Your task to perform on an android device: Open calendar and show me the third week of next month Image 0: 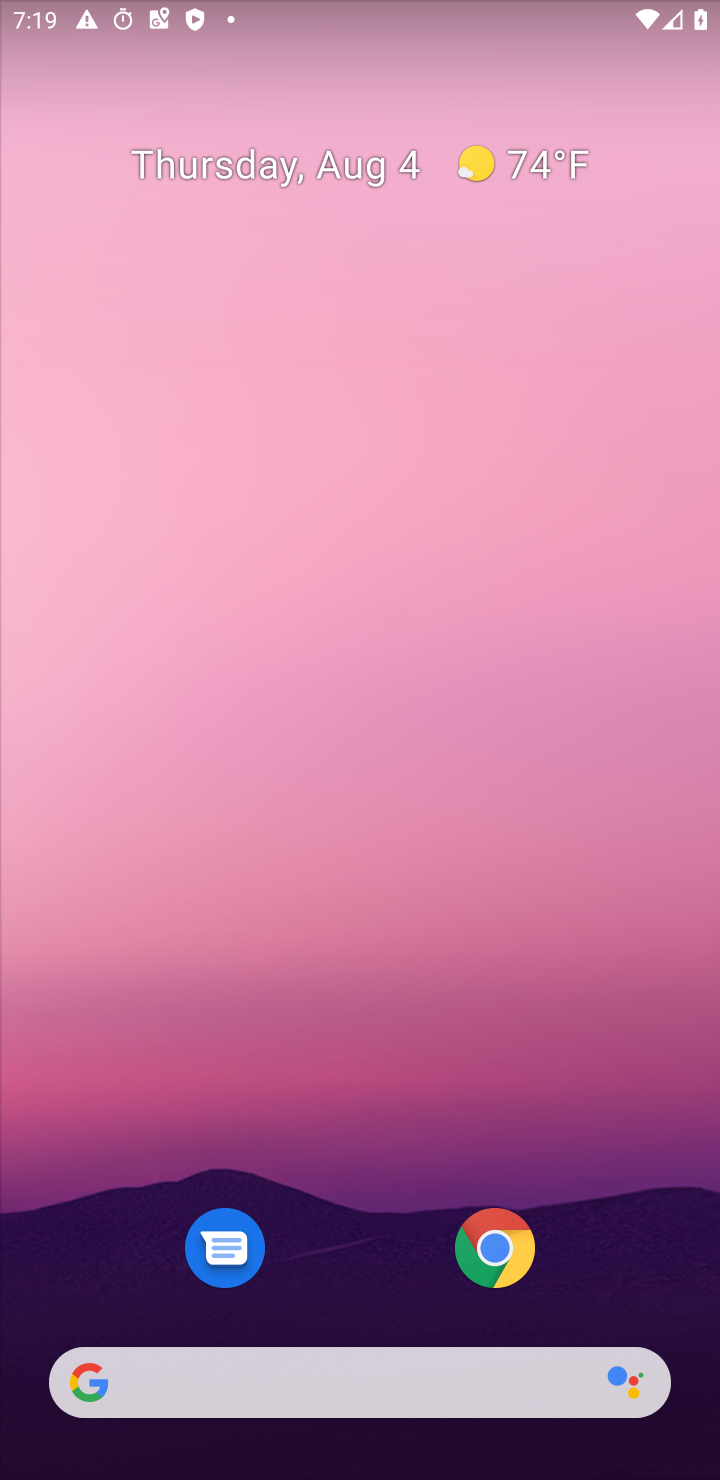
Step 0: press home button
Your task to perform on an android device: Open calendar and show me the third week of next month Image 1: 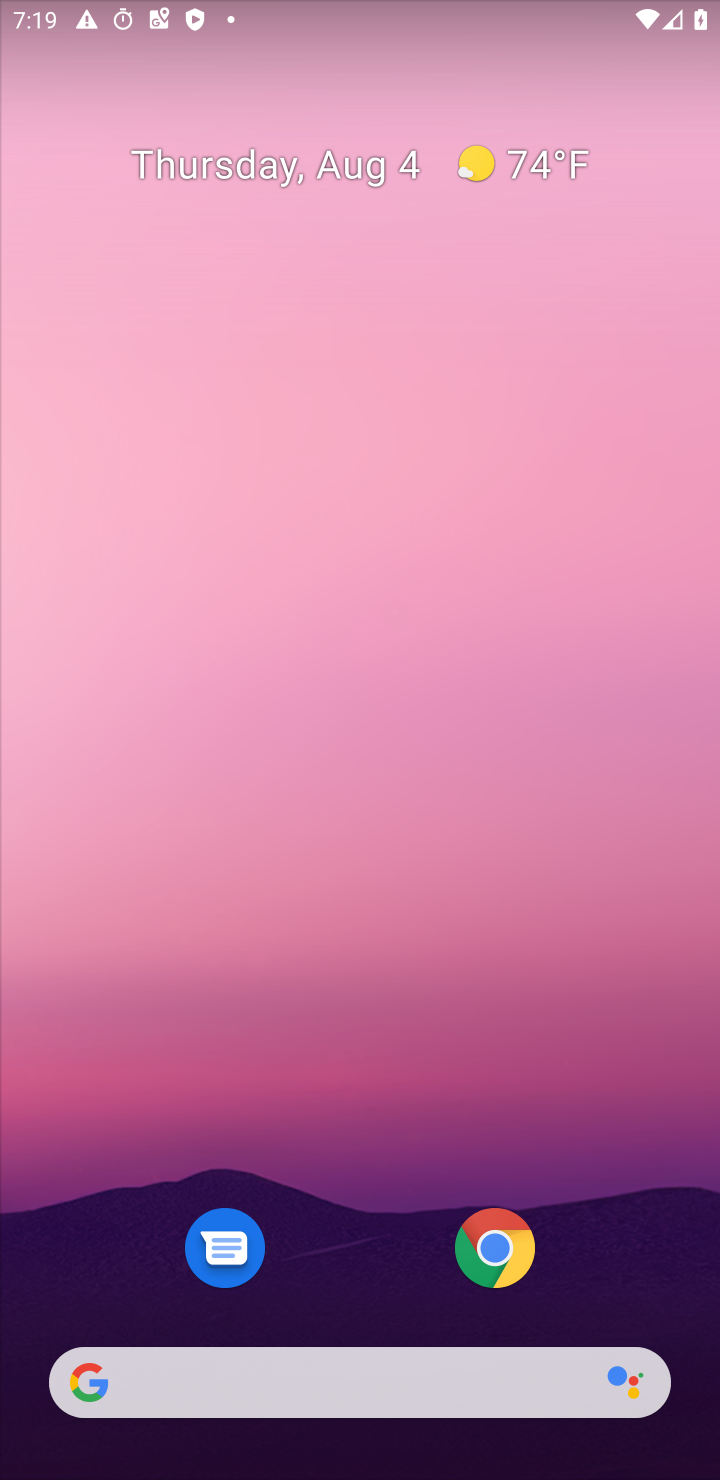
Step 1: drag from (379, 1328) to (413, 531)
Your task to perform on an android device: Open calendar and show me the third week of next month Image 2: 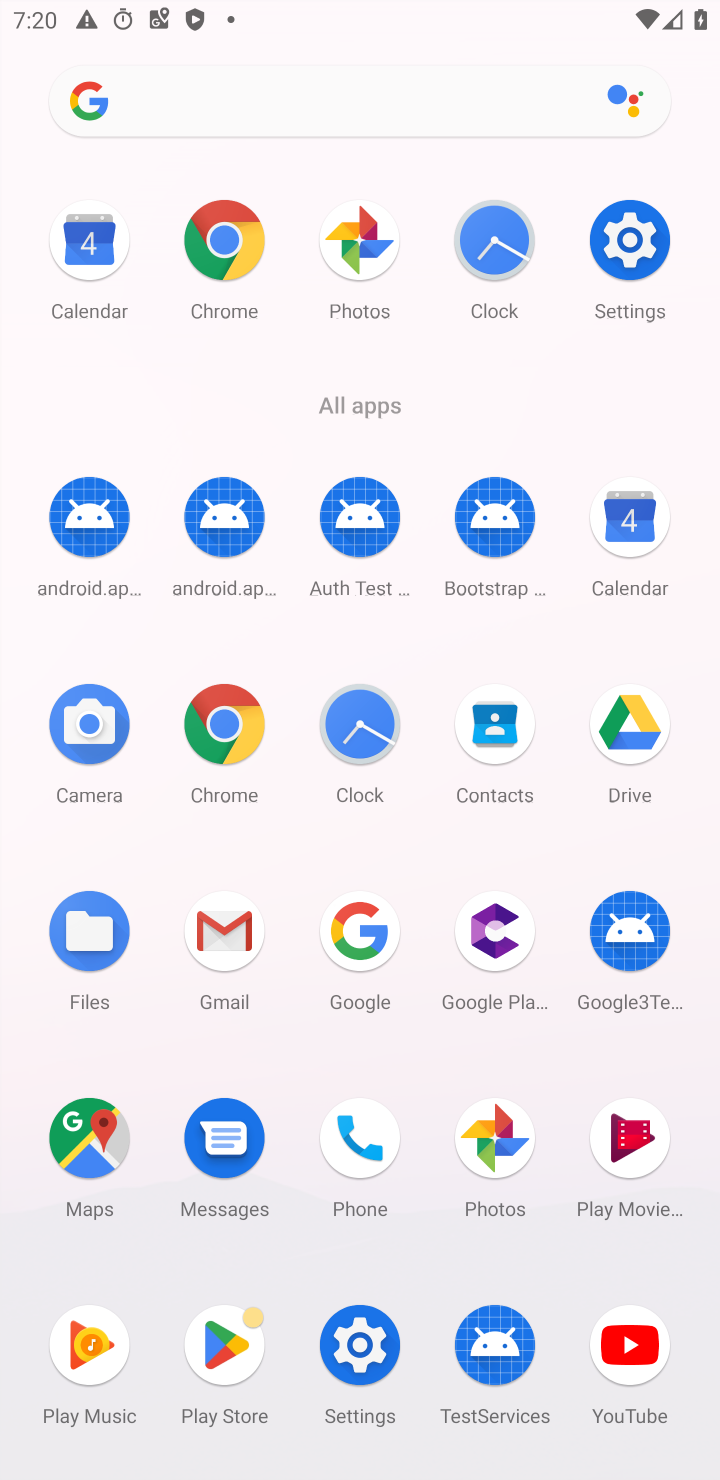
Step 2: click (611, 528)
Your task to perform on an android device: Open calendar and show me the third week of next month Image 3: 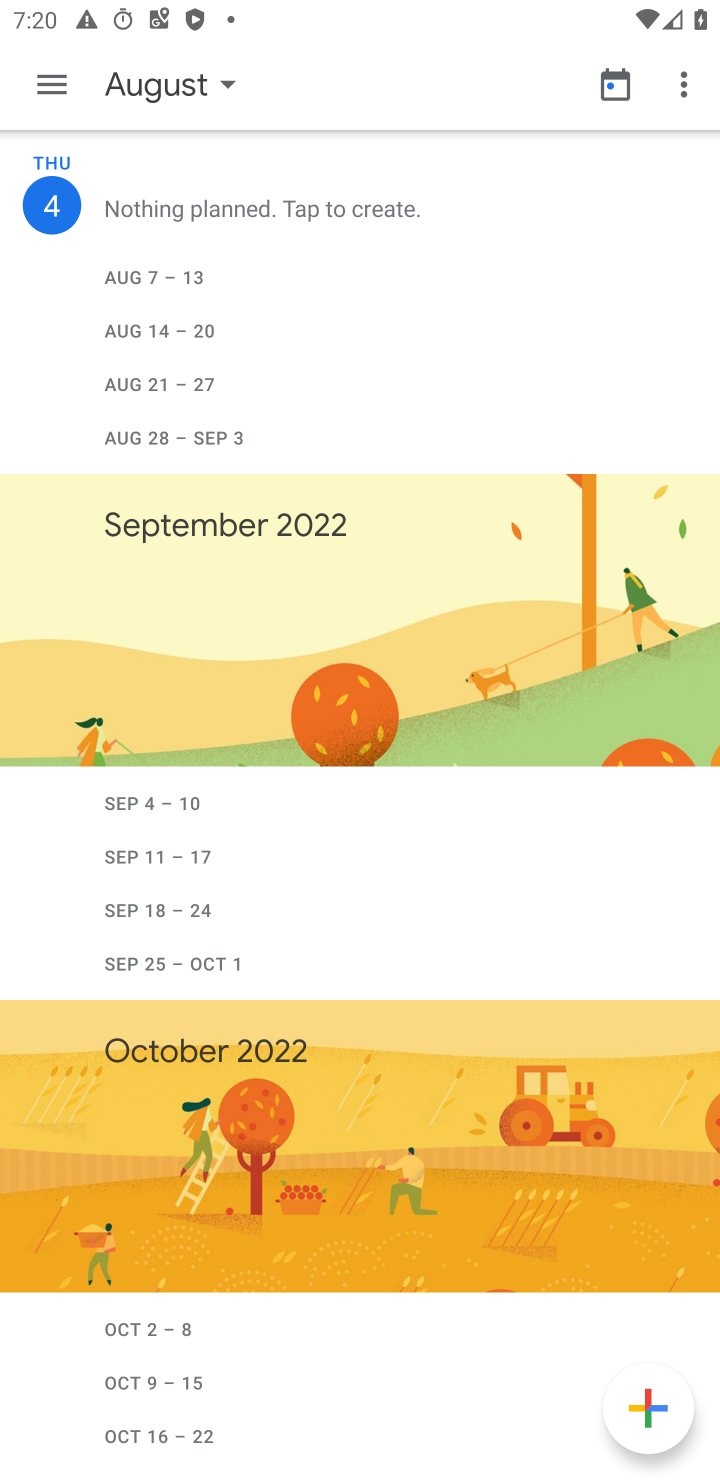
Step 3: click (28, 100)
Your task to perform on an android device: Open calendar and show me the third week of next month Image 4: 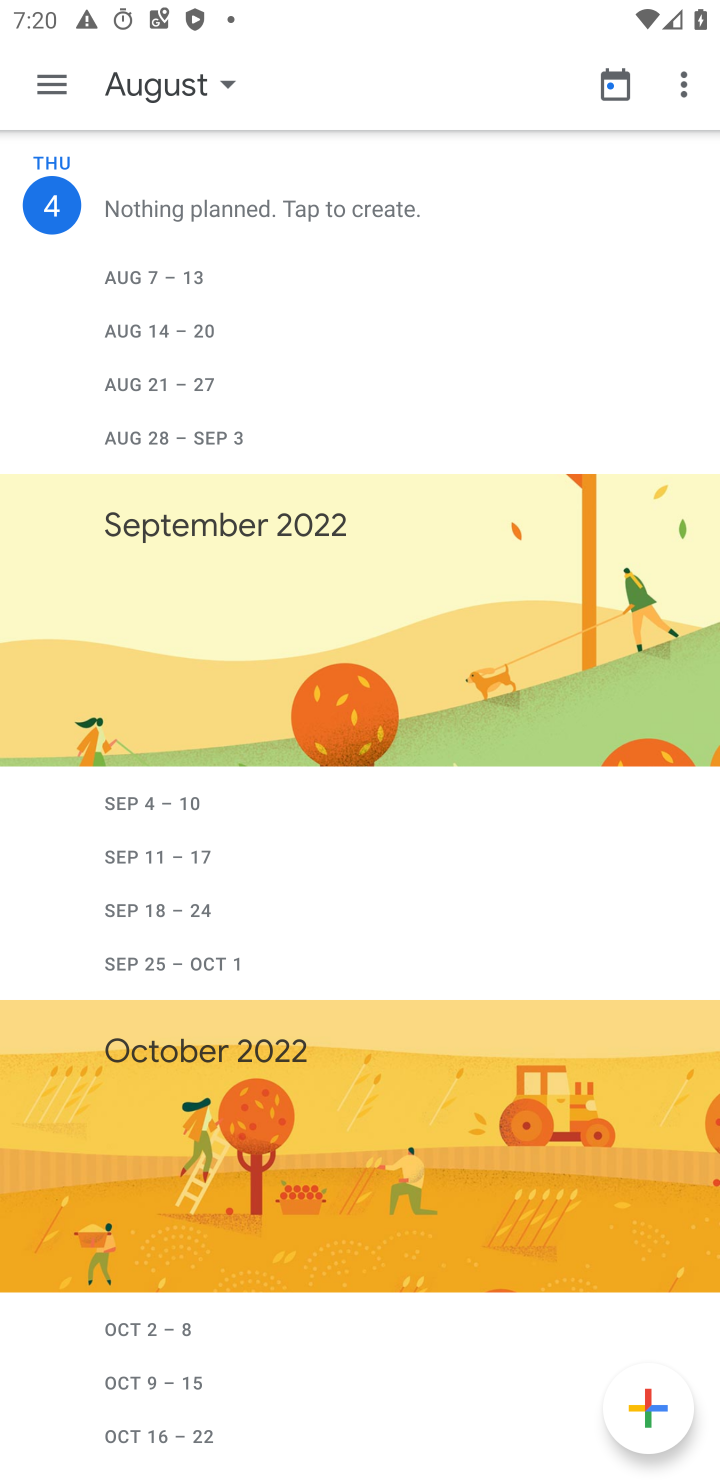
Step 4: click (51, 109)
Your task to perform on an android device: Open calendar and show me the third week of next month Image 5: 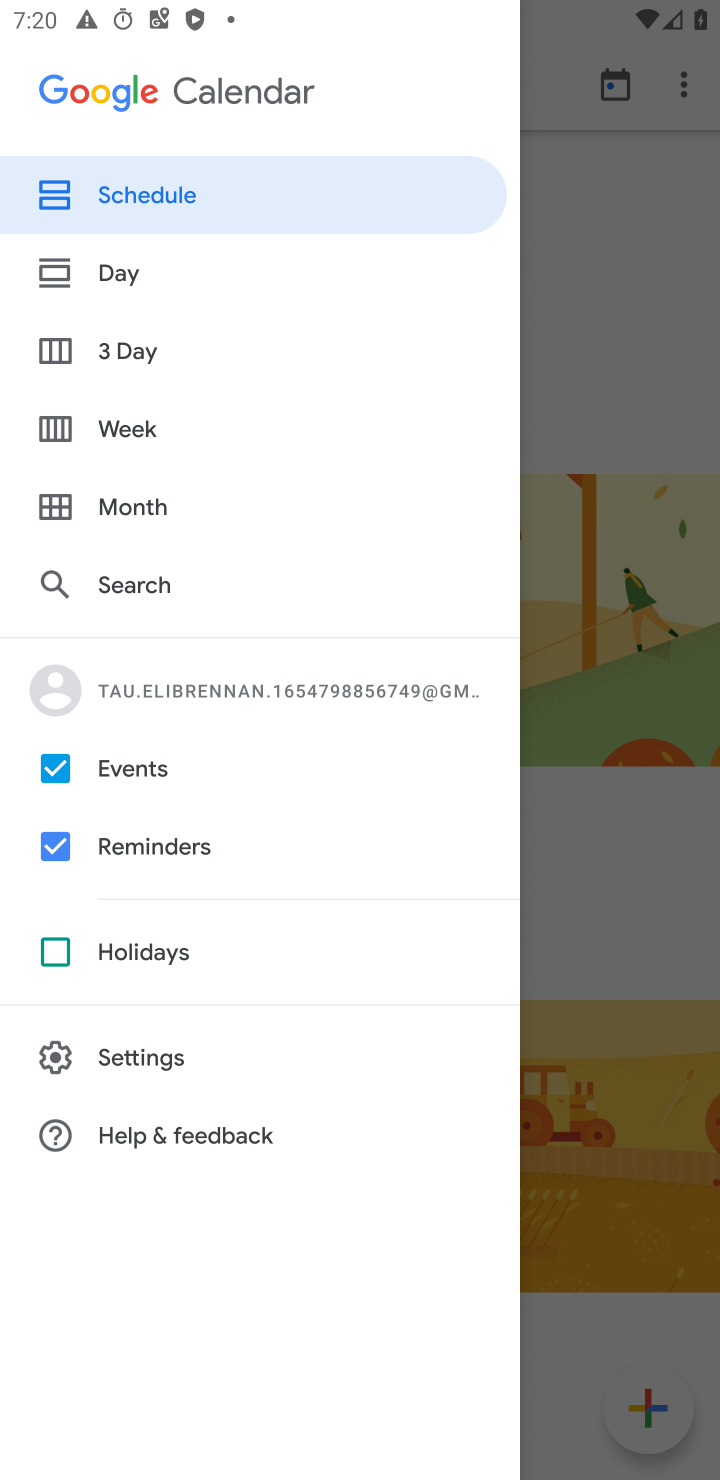
Step 5: click (163, 506)
Your task to perform on an android device: Open calendar and show me the third week of next month Image 6: 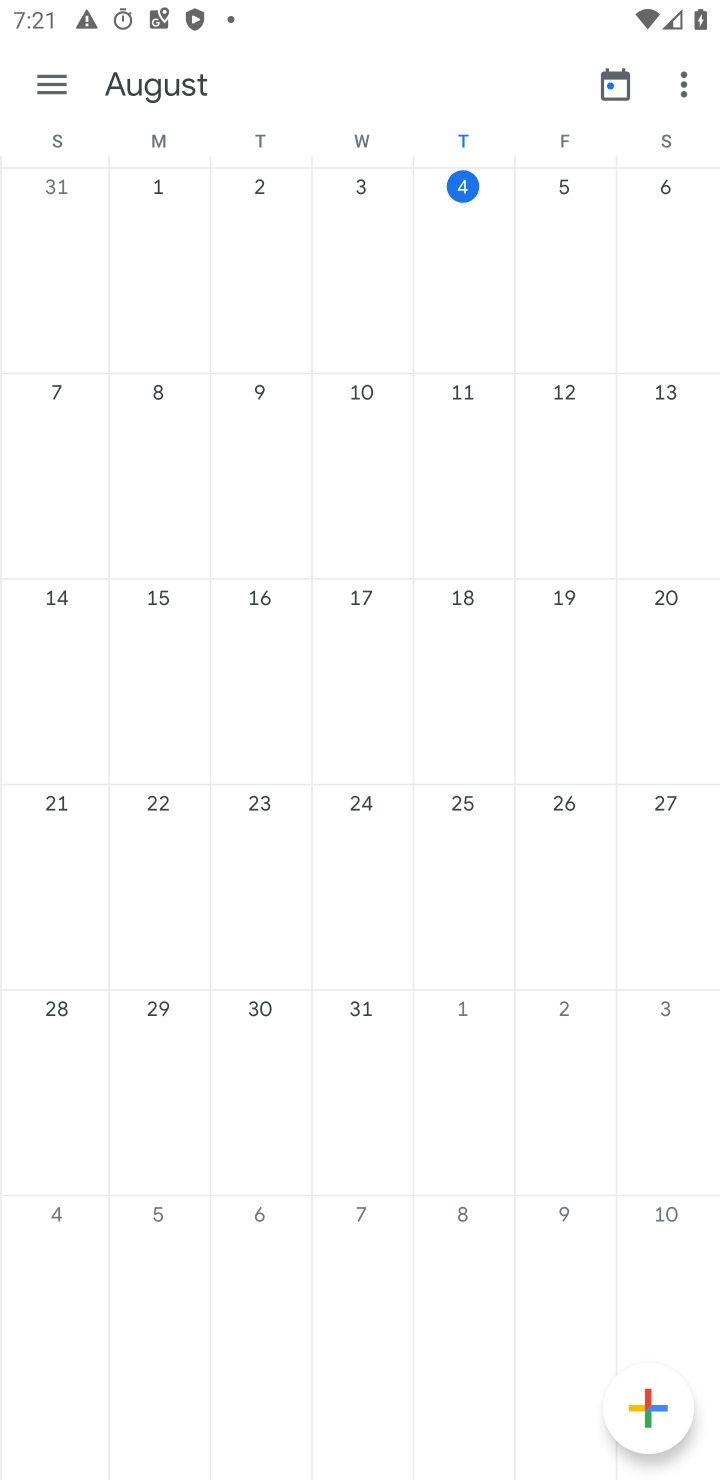
Step 6: drag from (664, 647) to (18, 606)
Your task to perform on an android device: Open calendar and show me the third week of next month Image 7: 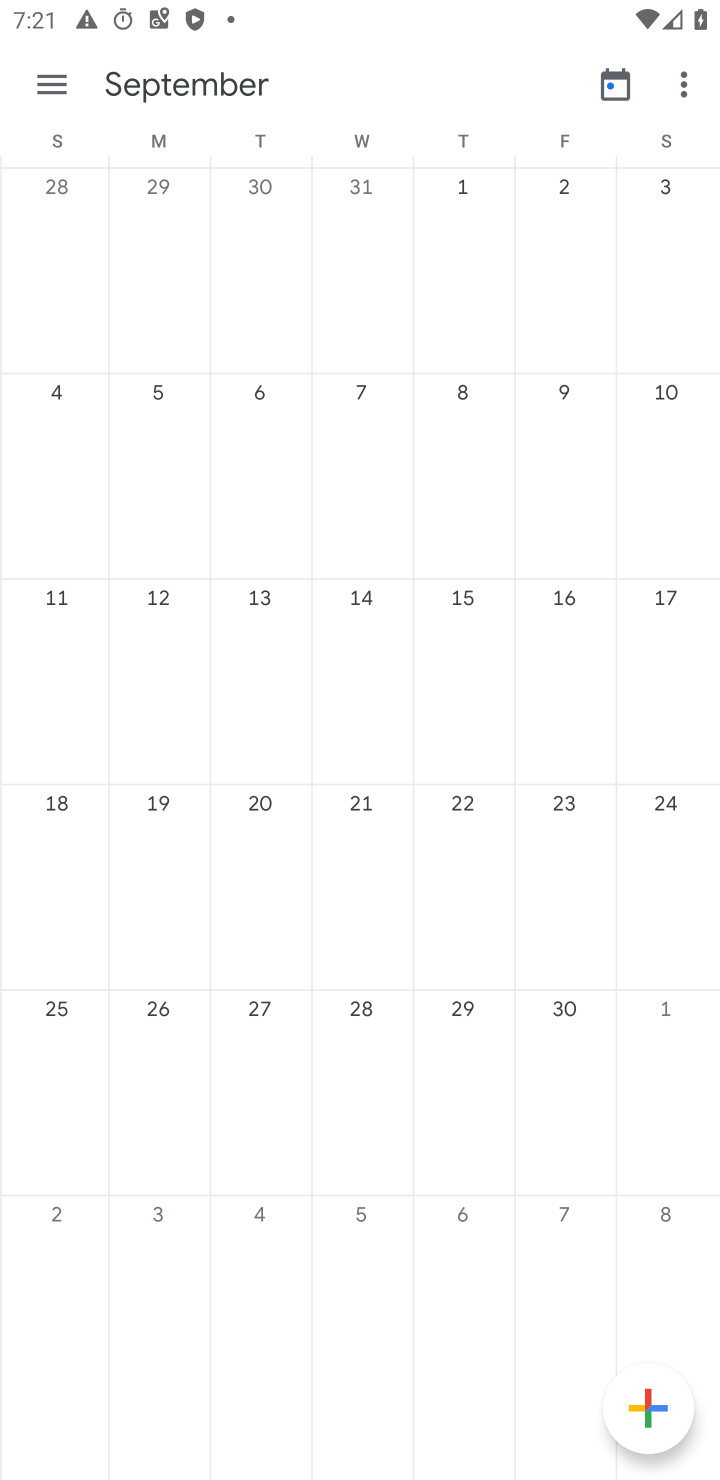
Step 7: click (121, 858)
Your task to perform on an android device: Open calendar and show me the third week of next month Image 8: 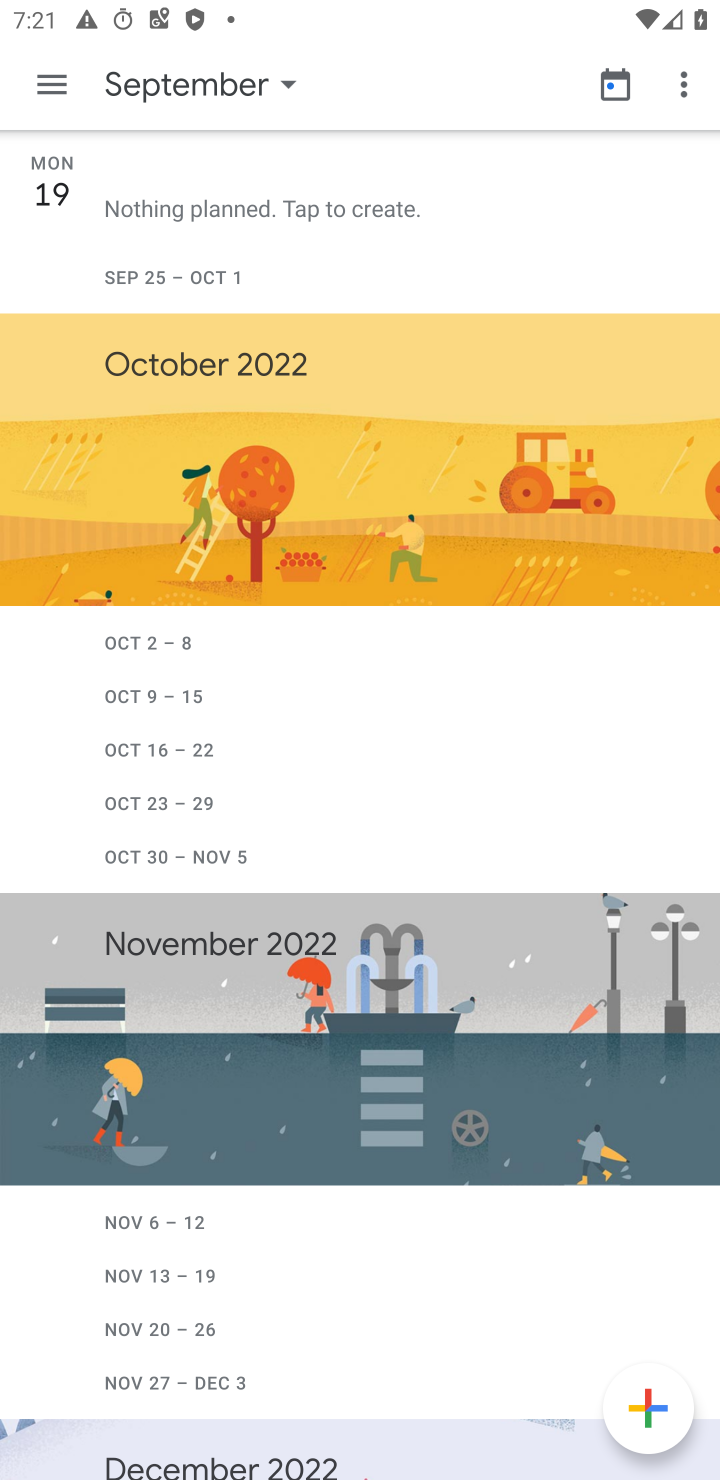
Step 8: task complete